Your task to perform on an android device: Show me productivity apps on the Play Store Image 0: 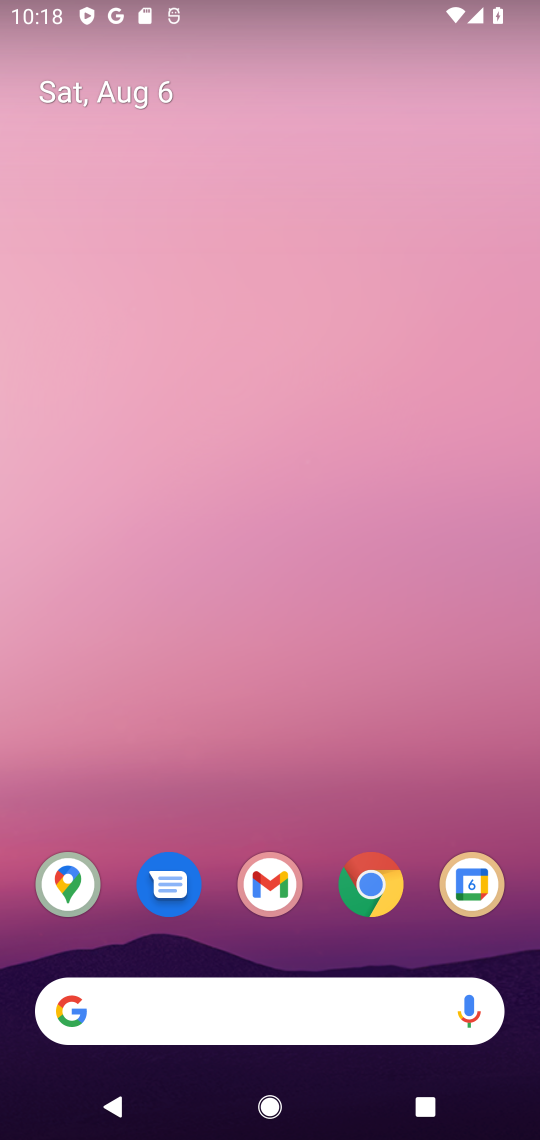
Step 0: drag from (429, 950) to (395, 182)
Your task to perform on an android device: Show me productivity apps on the Play Store Image 1: 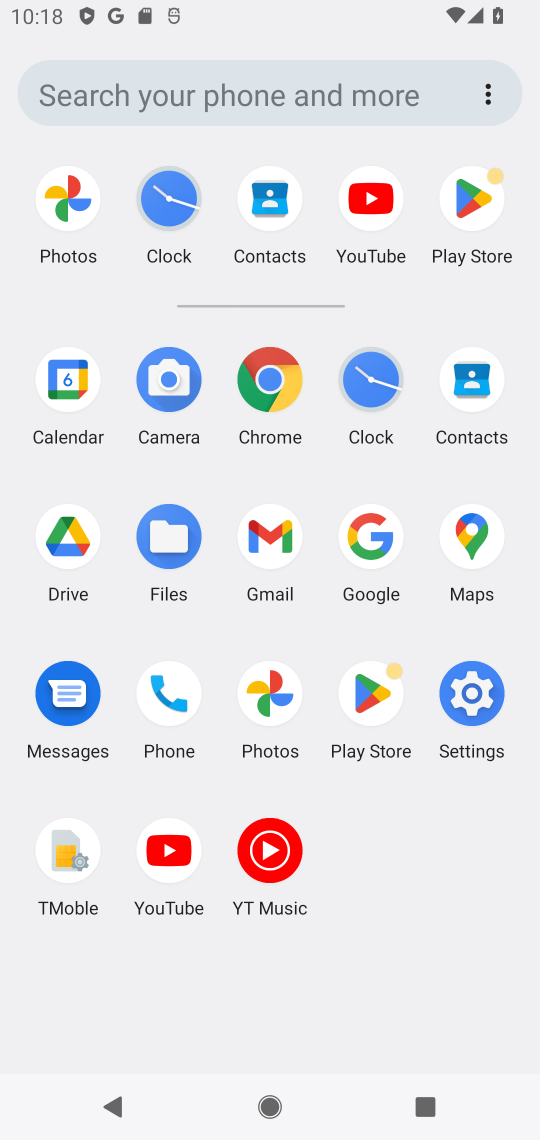
Step 1: click (376, 697)
Your task to perform on an android device: Show me productivity apps on the Play Store Image 2: 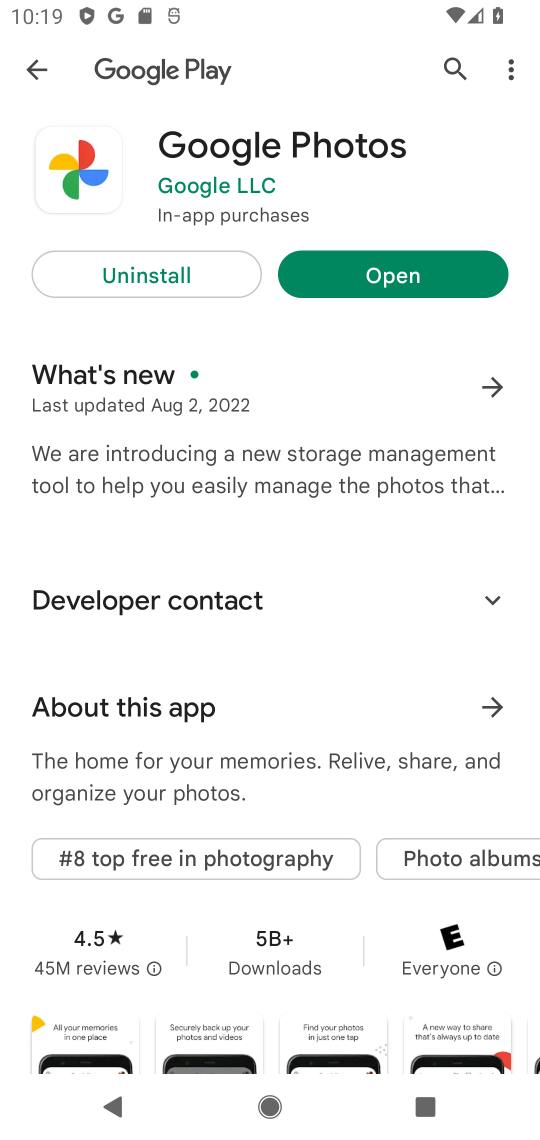
Step 2: press back button
Your task to perform on an android device: Show me productivity apps on the Play Store Image 3: 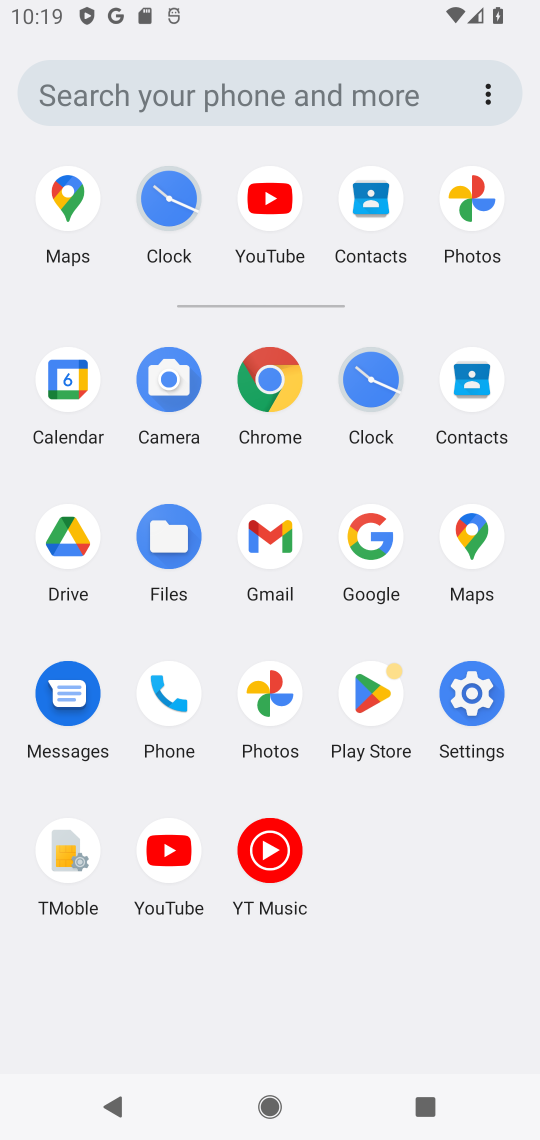
Step 3: click (371, 694)
Your task to perform on an android device: Show me productivity apps on the Play Store Image 4: 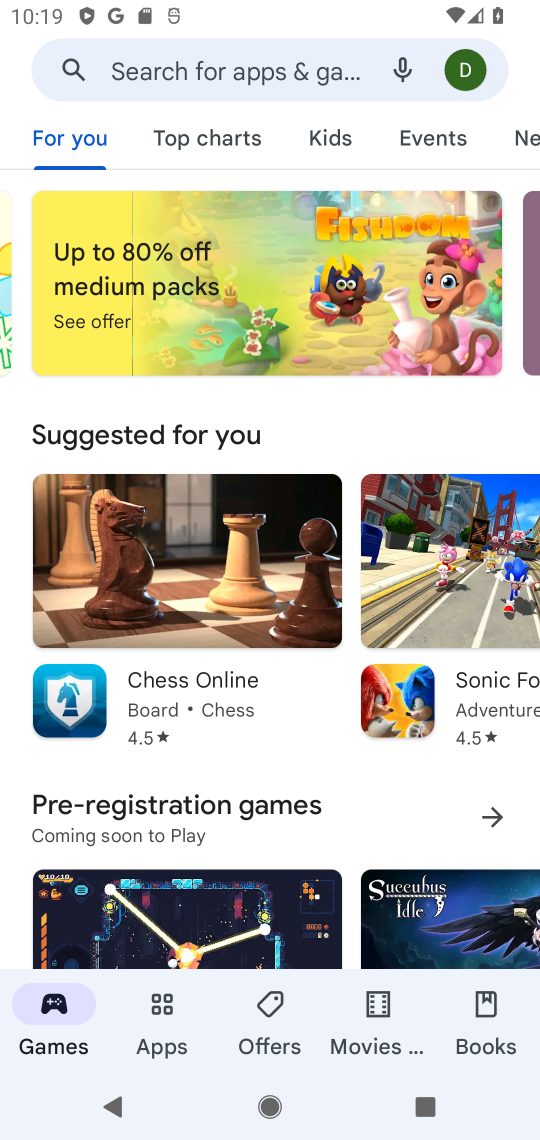
Step 4: click (172, 1009)
Your task to perform on an android device: Show me productivity apps on the Play Store Image 5: 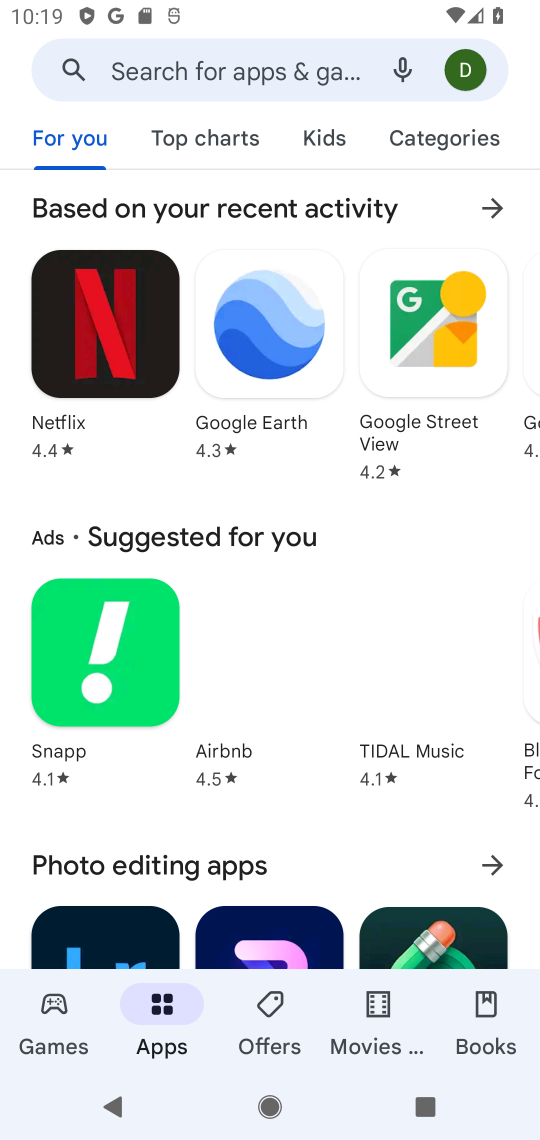
Step 5: click (471, 135)
Your task to perform on an android device: Show me productivity apps on the Play Store Image 6: 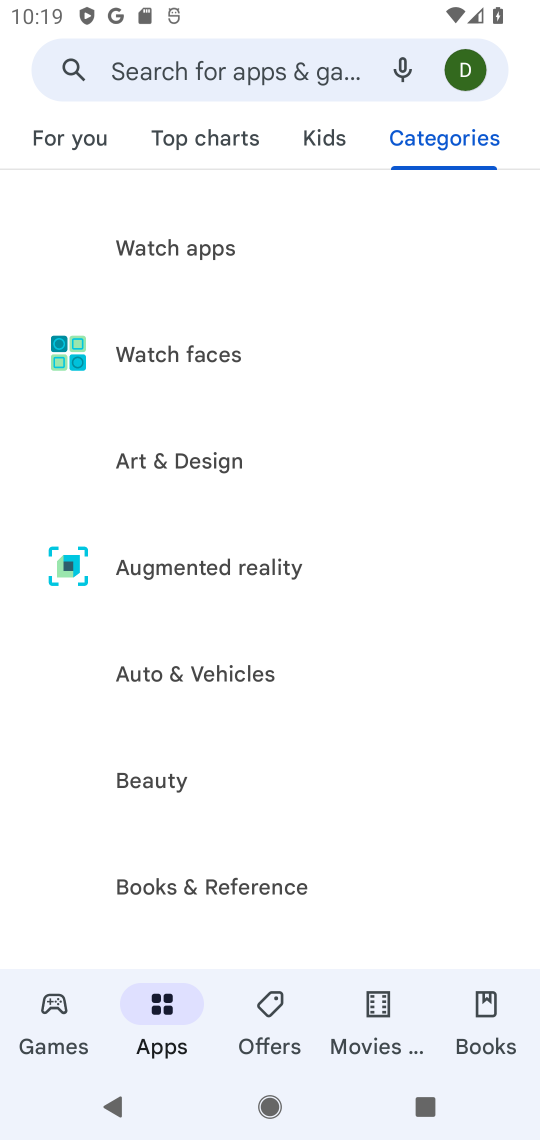
Step 6: drag from (378, 841) to (356, 250)
Your task to perform on an android device: Show me productivity apps on the Play Store Image 7: 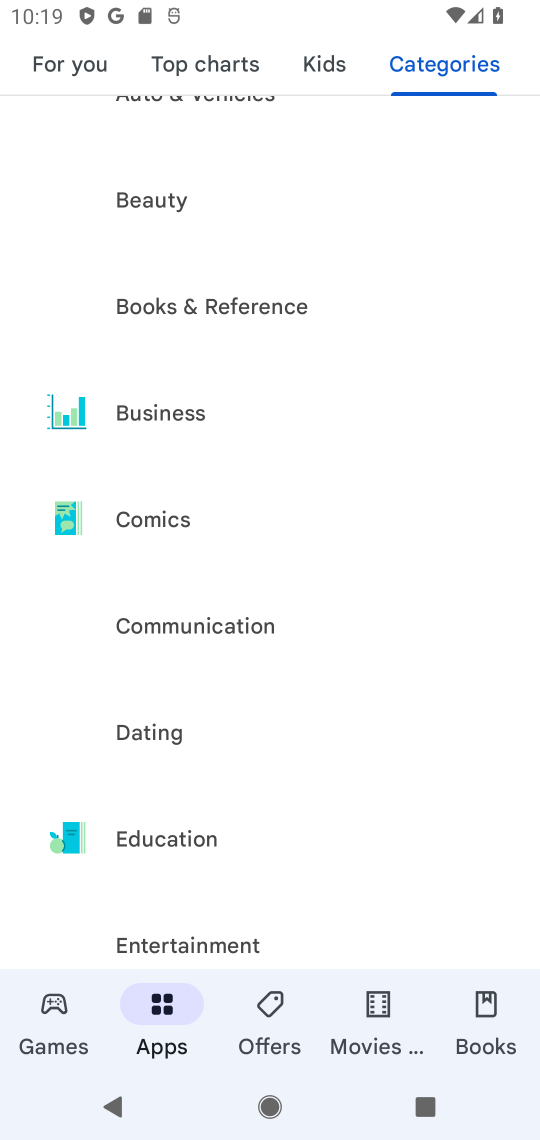
Step 7: drag from (309, 909) to (349, 259)
Your task to perform on an android device: Show me productivity apps on the Play Store Image 8: 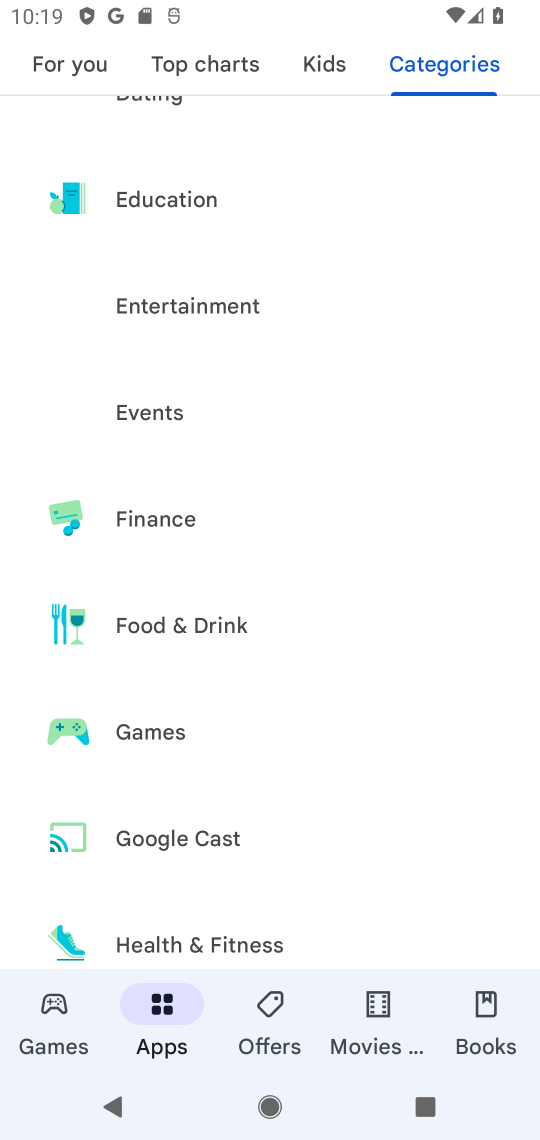
Step 8: drag from (344, 925) to (341, 142)
Your task to perform on an android device: Show me productivity apps on the Play Store Image 9: 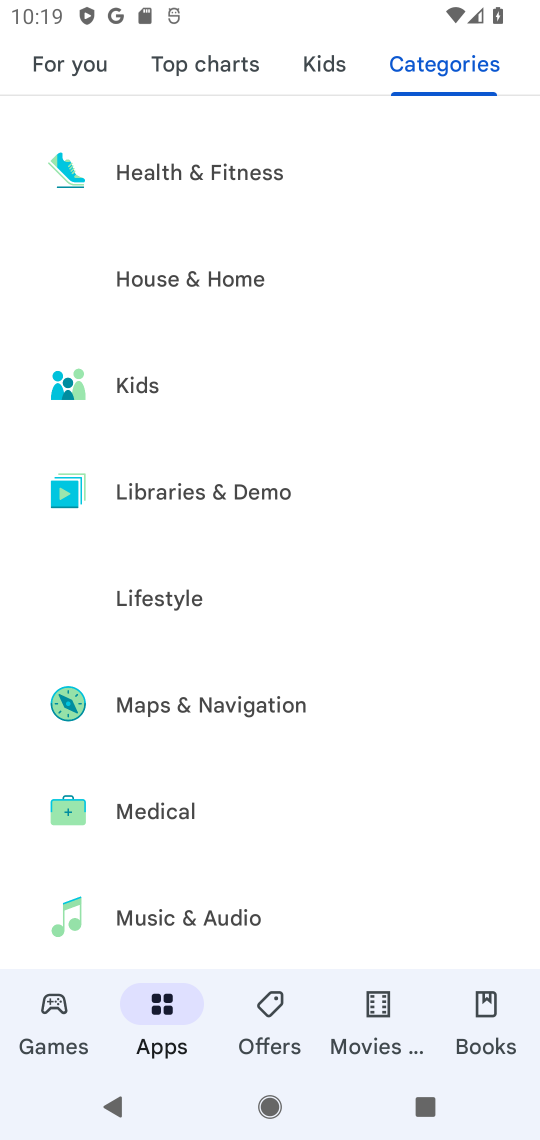
Step 9: drag from (345, 924) to (338, 153)
Your task to perform on an android device: Show me productivity apps on the Play Store Image 10: 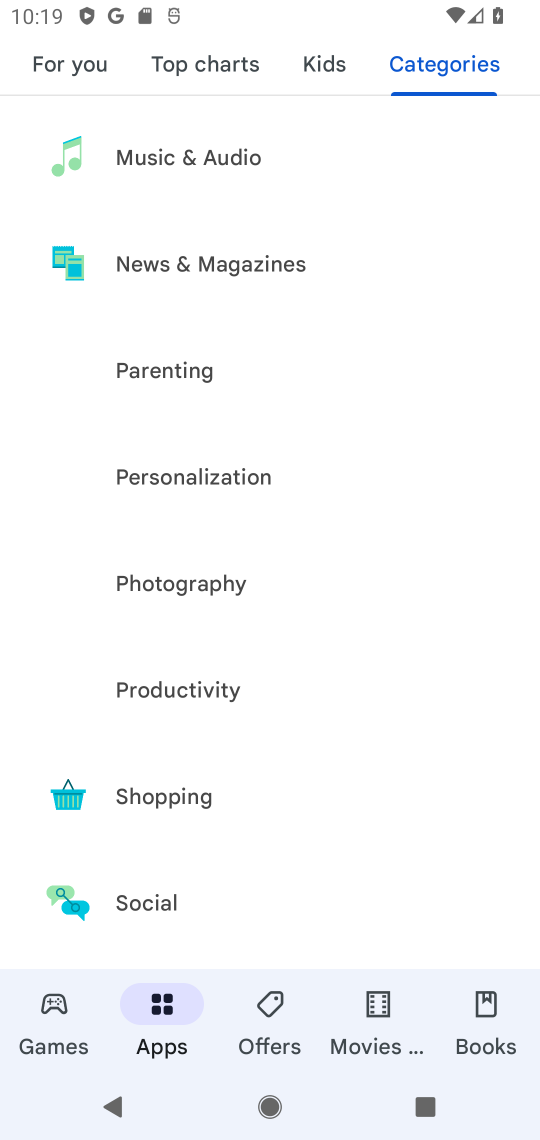
Step 10: click (153, 688)
Your task to perform on an android device: Show me productivity apps on the Play Store Image 11: 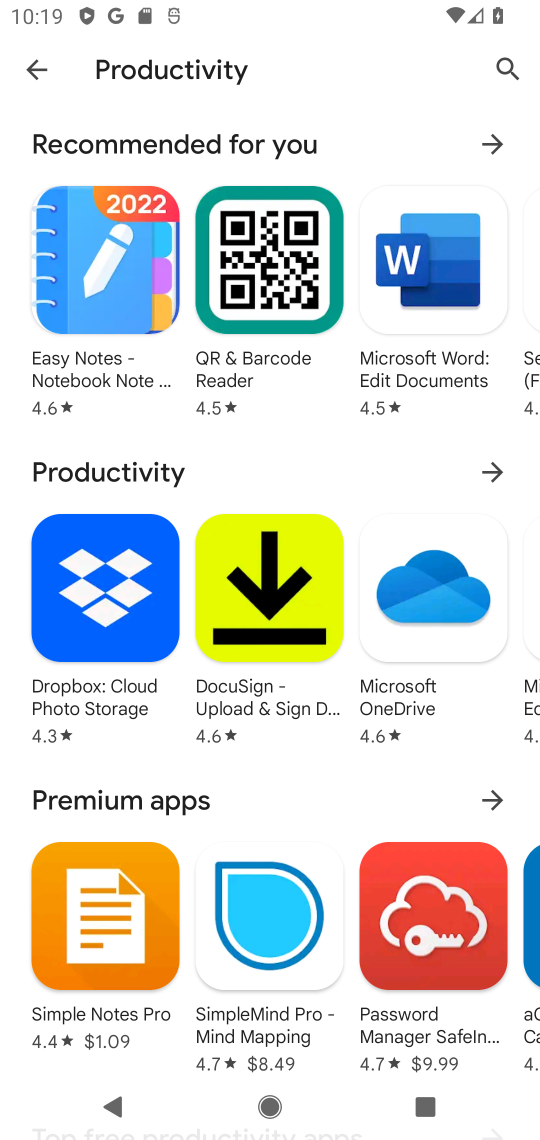
Step 11: click (492, 466)
Your task to perform on an android device: Show me productivity apps on the Play Store Image 12: 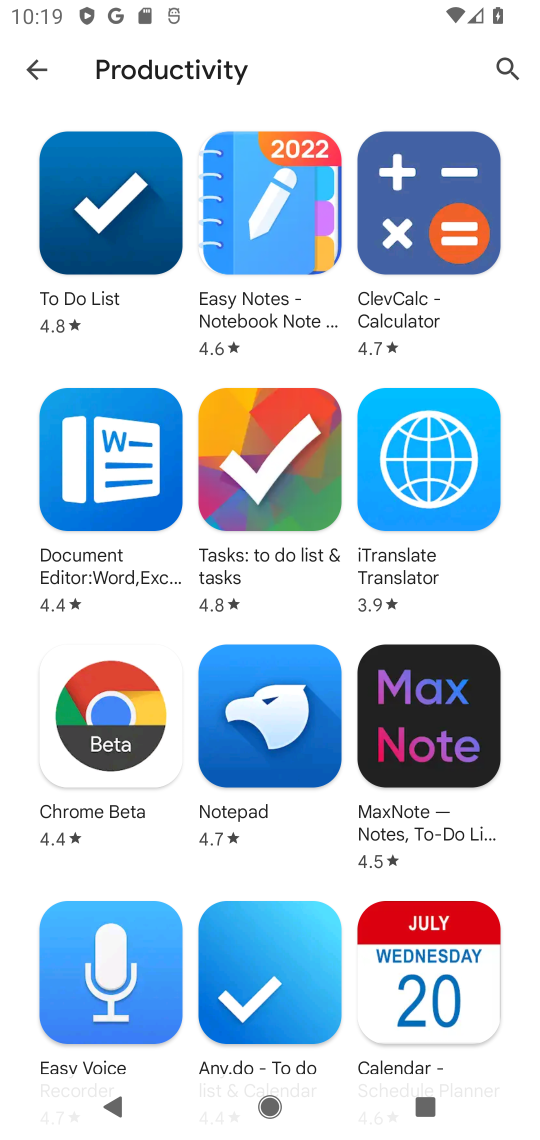
Step 12: task complete